Your task to perform on an android device: allow cookies in the chrome app Image 0: 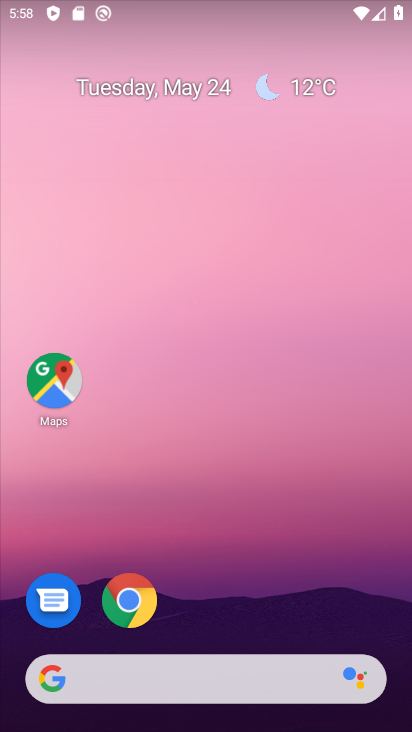
Step 0: drag from (263, 547) to (350, 13)
Your task to perform on an android device: allow cookies in the chrome app Image 1: 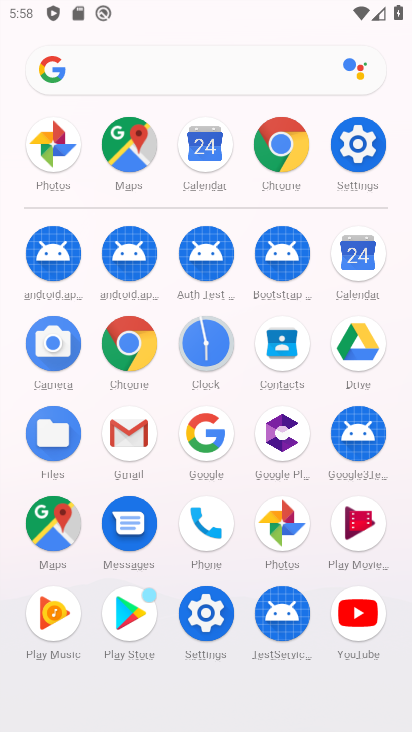
Step 1: click (137, 416)
Your task to perform on an android device: allow cookies in the chrome app Image 2: 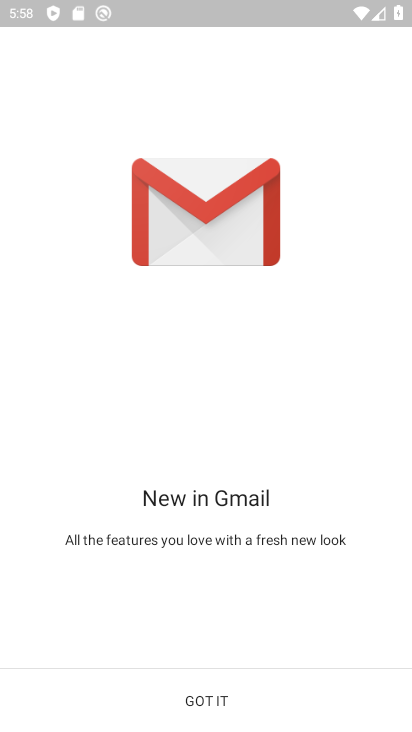
Step 2: click (211, 702)
Your task to perform on an android device: allow cookies in the chrome app Image 3: 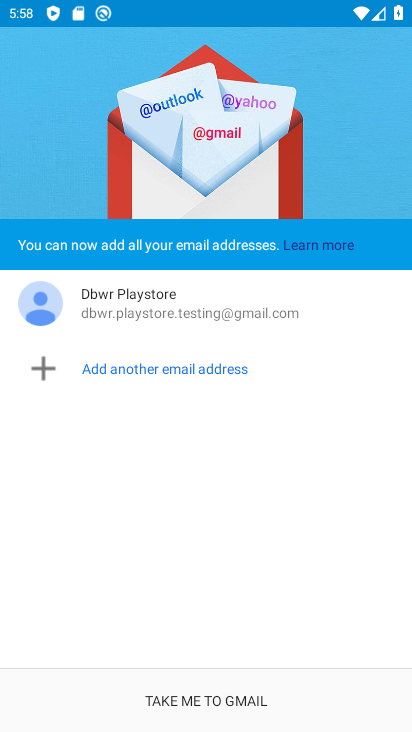
Step 3: press home button
Your task to perform on an android device: allow cookies in the chrome app Image 4: 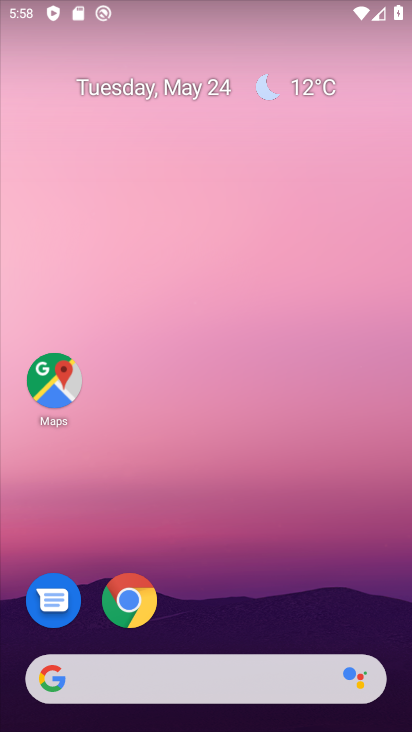
Step 4: drag from (237, 643) to (307, 166)
Your task to perform on an android device: allow cookies in the chrome app Image 5: 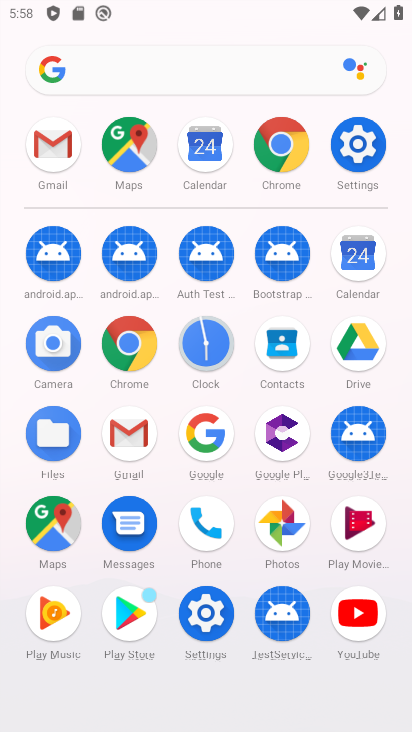
Step 5: click (148, 362)
Your task to perform on an android device: allow cookies in the chrome app Image 6: 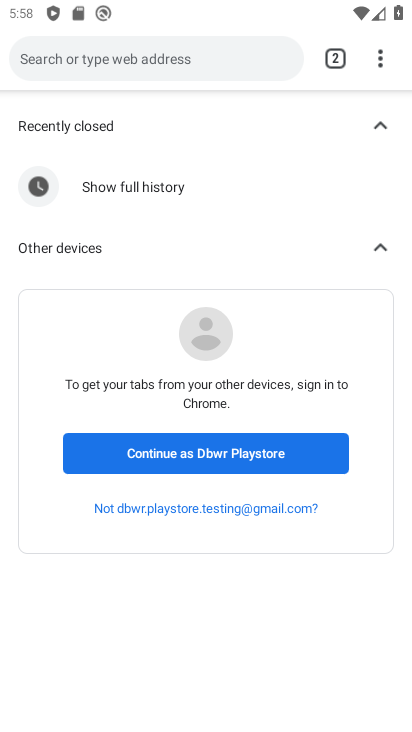
Step 6: click (373, 59)
Your task to perform on an android device: allow cookies in the chrome app Image 7: 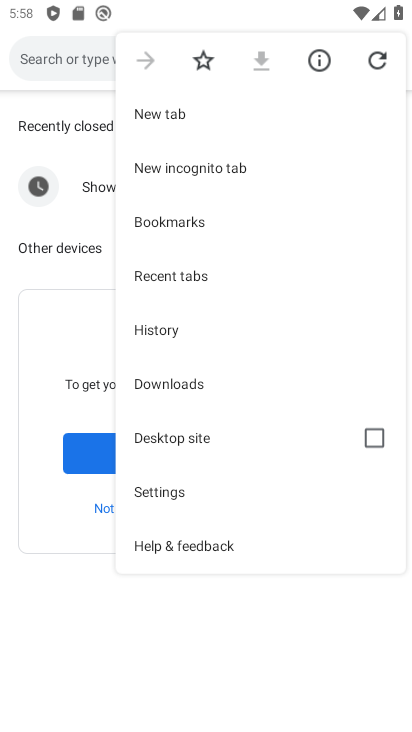
Step 7: click (165, 472)
Your task to perform on an android device: allow cookies in the chrome app Image 8: 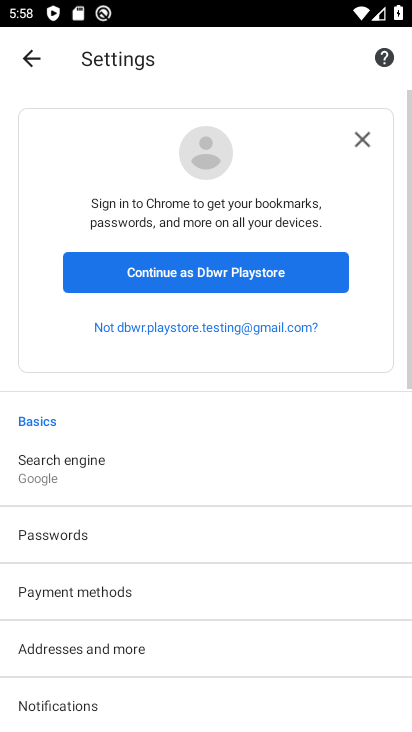
Step 8: drag from (142, 713) to (230, 43)
Your task to perform on an android device: allow cookies in the chrome app Image 9: 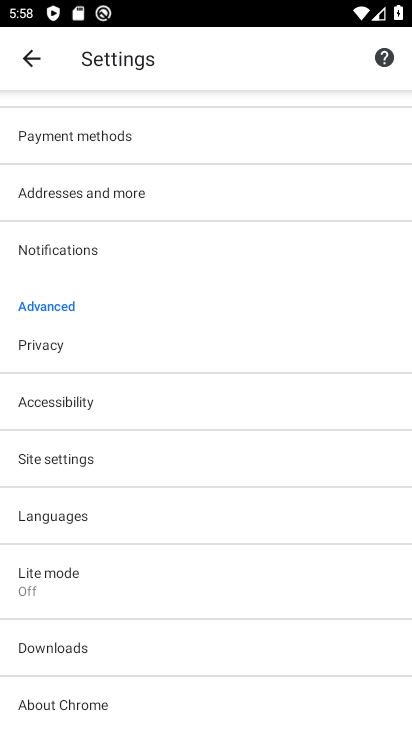
Step 9: drag from (120, 667) to (179, 63)
Your task to perform on an android device: allow cookies in the chrome app Image 10: 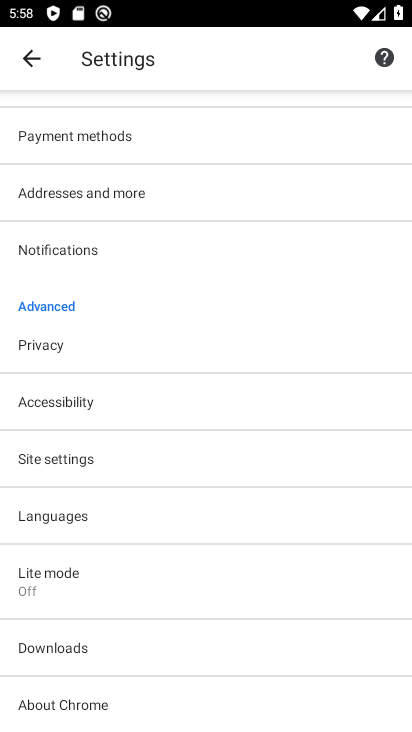
Step 10: click (68, 359)
Your task to perform on an android device: allow cookies in the chrome app Image 11: 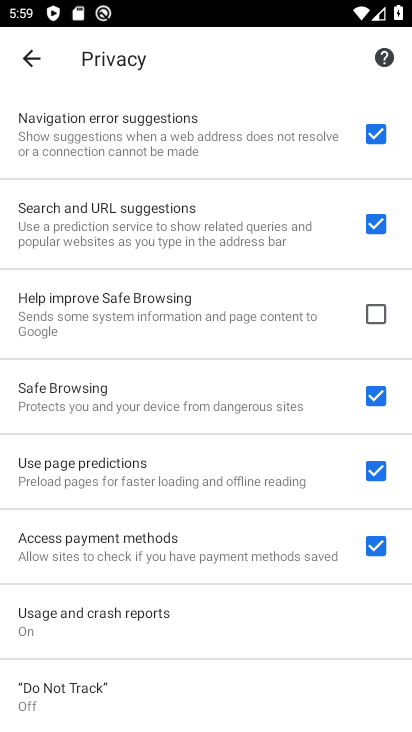
Step 11: task complete